Your task to perform on an android device: check android version Image 0: 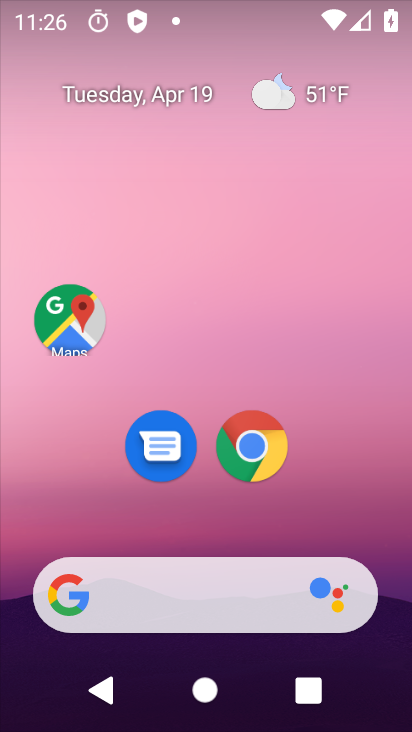
Step 0: drag from (360, 249) to (355, 179)
Your task to perform on an android device: check android version Image 1: 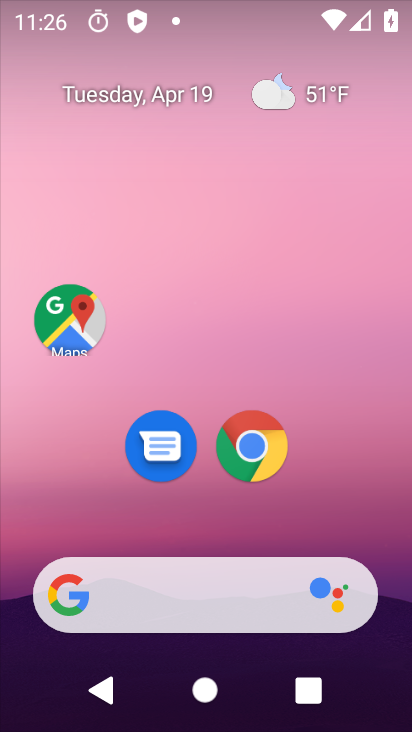
Step 1: drag from (333, 194) to (323, 94)
Your task to perform on an android device: check android version Image 2: 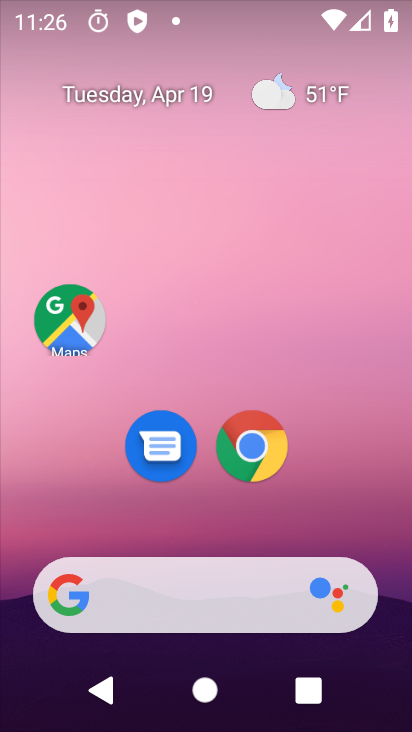
Step 2: click (364, 39)
Your task to perform on an android device: check android version Image 3: 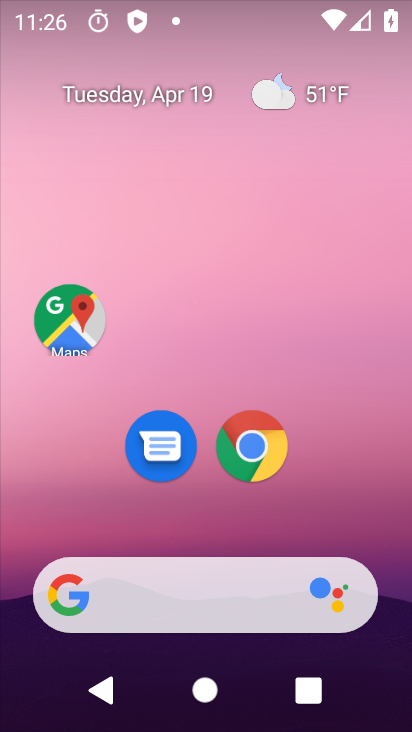
Step 3: drag from (388, 557) to (352, 76)
Your task to perform on an android device: check android version Image 4: 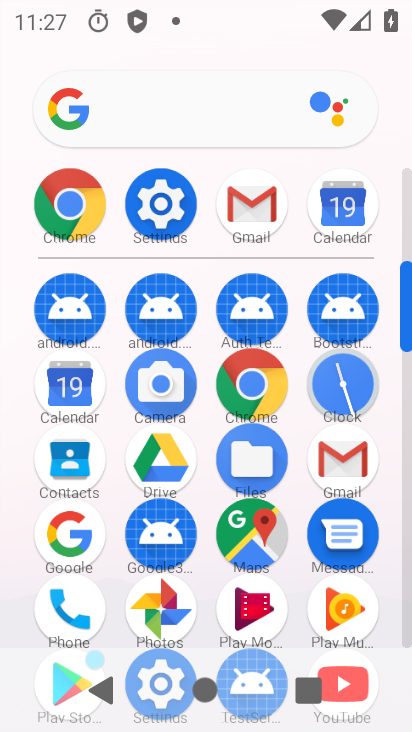
Step 4: click (168, 208)
Your task to perform on an android device: check android version Image 5: 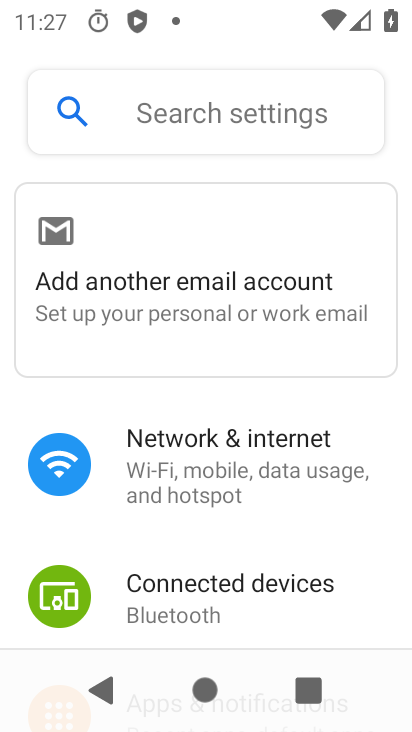
Step 5: drag from (355, 602) to (354, 254)
Your task to perform on an android device: check android version Image 6: 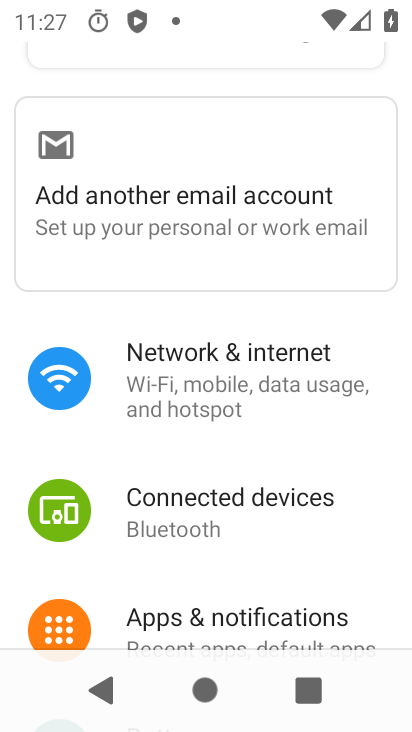
Step 6: drag from (360, 625) to (361, 184)
Your task to perform on an android device: check android version Image 7: 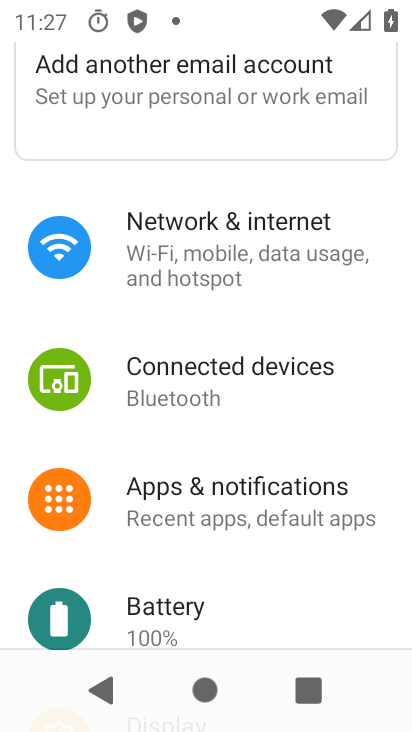
Step 7: drag from (363, 604) to (366, 225)
Your task to perform on an android device: check android version Image 8: 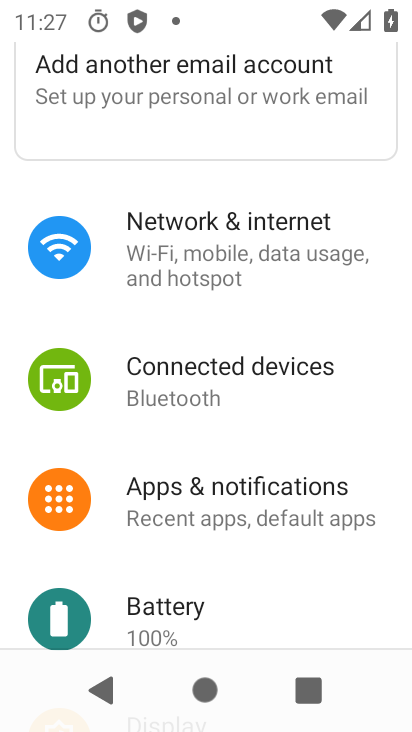
Step 8: drag from (359, 615) to (351, 131)
Your task to perform on an android device: check android version Image 9: 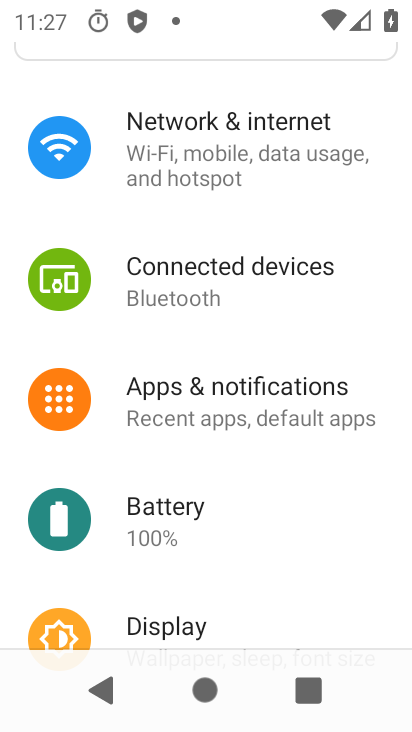
Step 9: drag from (342, 625) to (340, 191)
Your task to perform on an android device: check android version Image 10: 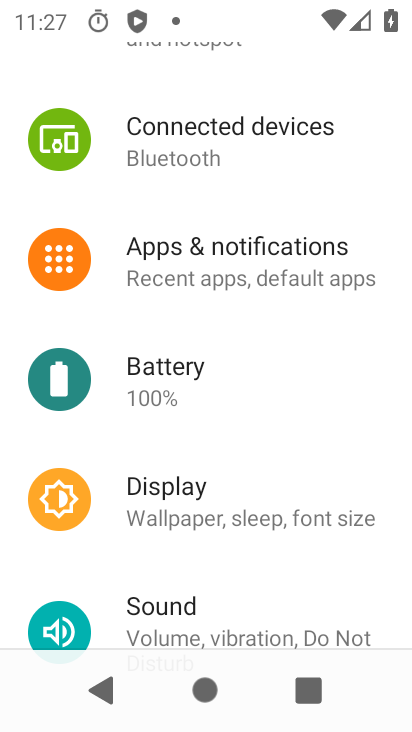
Step 10: drag from (373, 597) to (392, 213)
Your task to perform on an android device: check android version Image 11: 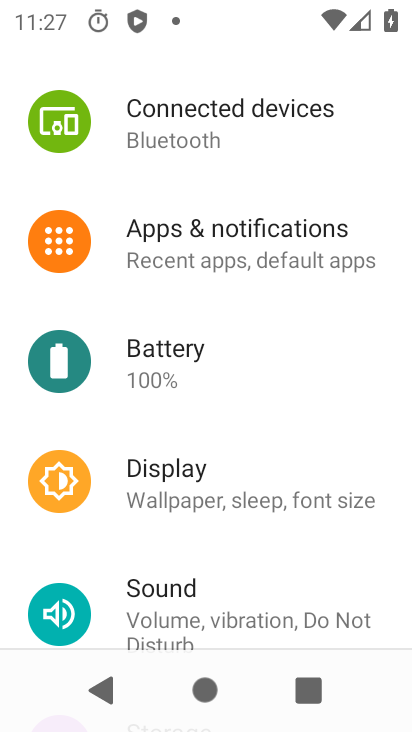
Step 11: drag from (398, 316) to (401, 121)
Your task to perform on an android device: check android version Image 12: 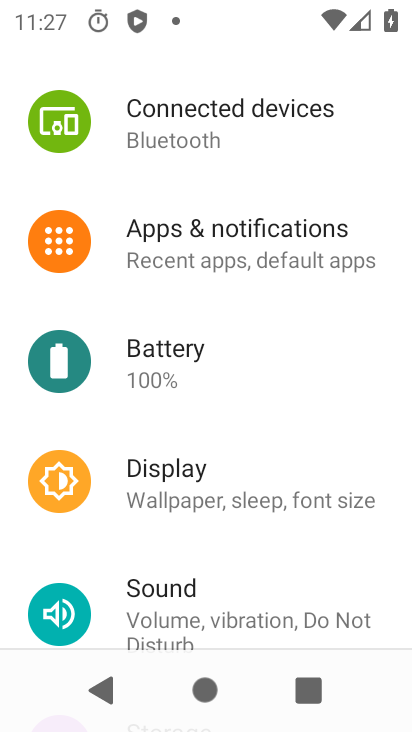
Step 12: click (391, 619)
Your task to perform on an android device: check android version Image 13: 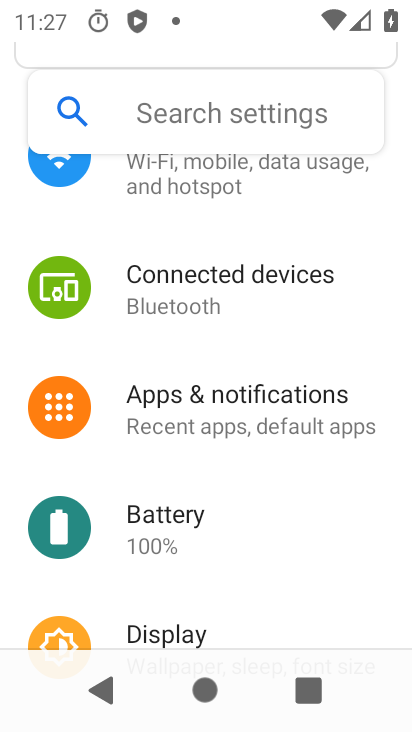
Step 13: drag from (382, 545) to (373, 132)
Your task to perform on an android device: check android version Image 14: 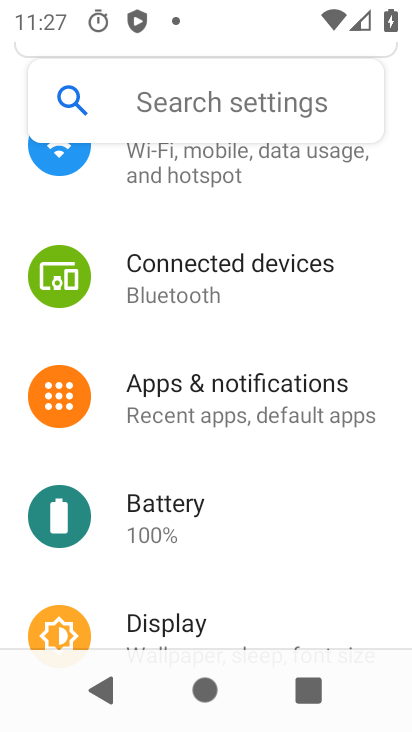
Step 14: drag from (386, 507) to (410, 246)
Your task to perform on an android device: check android version Image 15: 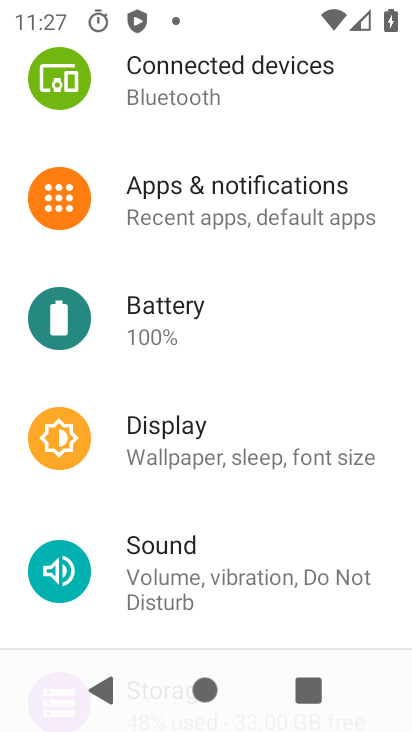
Step 15: click (399, 121)
Your task to perform on an android device: check android version Image 16: 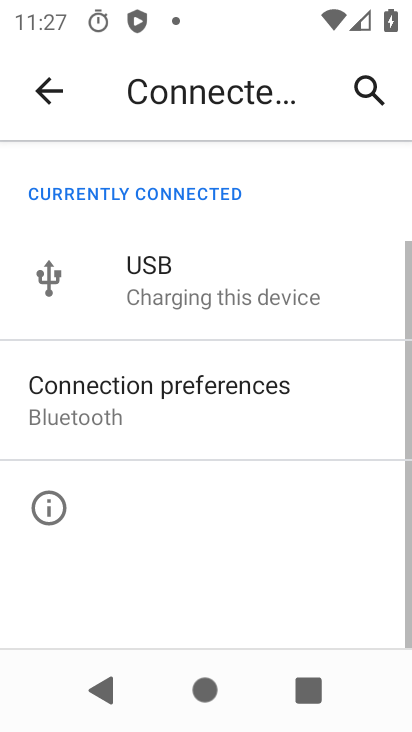
Step 16: drag from (388, 630) to (390, 357)
Your task to perform on an android device: check android version Image 17: 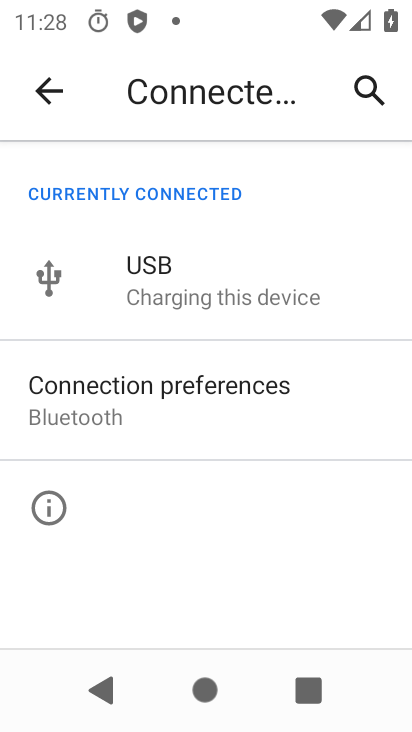
Step 17: click (47, 95)
Your task to perform on an android device: check android version Image 18: 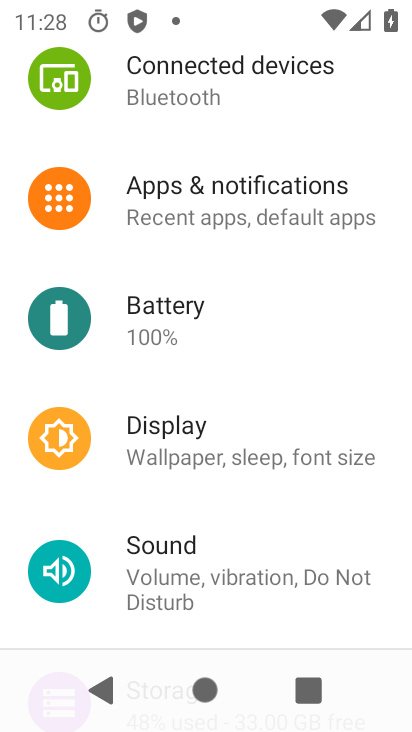
Step 18: drag from (309, 587) to (301, 244)
Your task to perform on an android device: check android version Image 19: 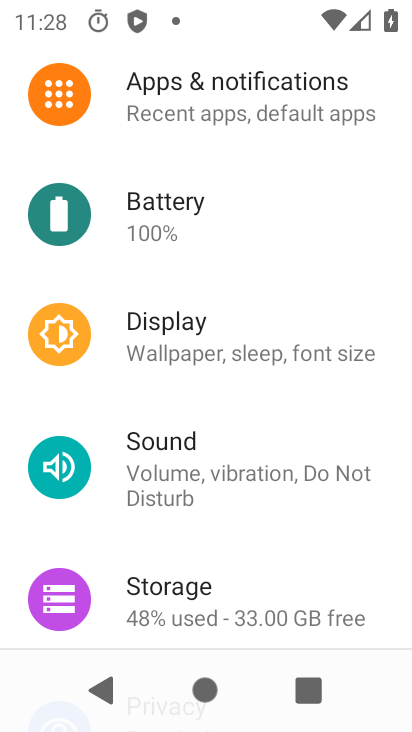
Step 19: drag from (277, 422) to (282, 170)
Your task to perform on an android device: check android version Image 20: 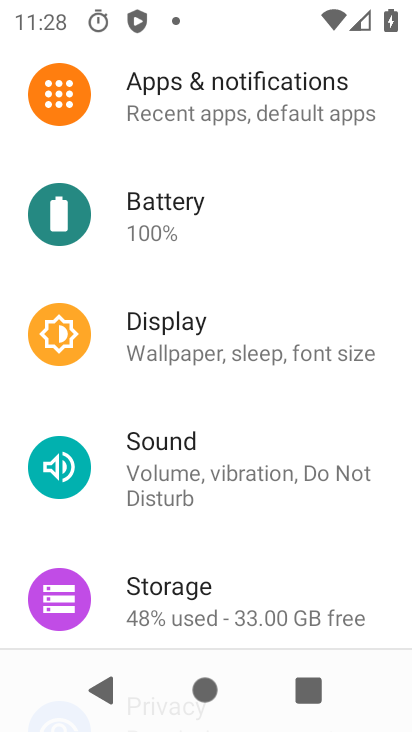
Step 20: drag from (381, 582) to (352, 159)
Your task to perform on an android device: check android version Image 21: 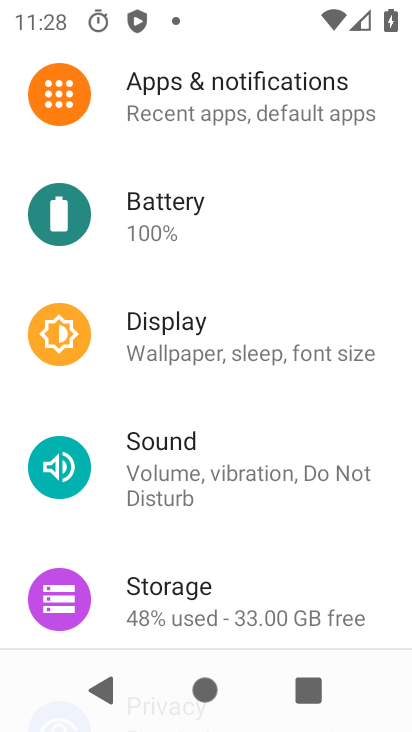
Step 21: drag from (384, 581) to (361, 213)
Your task to perform on an android device: check android version Image 22: 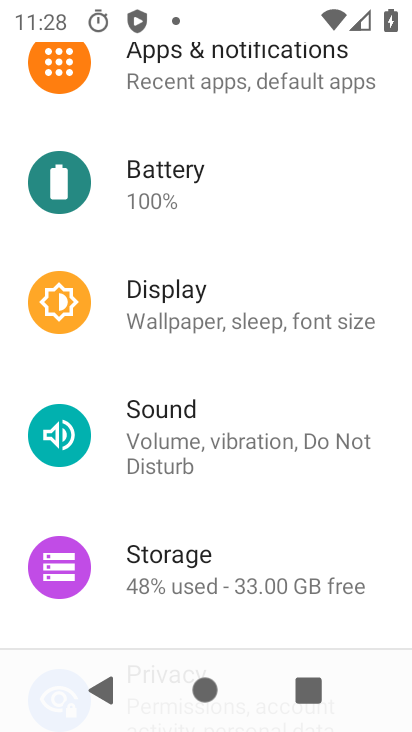
Step 22: drag from (374, 595) to (353, 160)
Your task to perform on an android device: check android version Image 23: 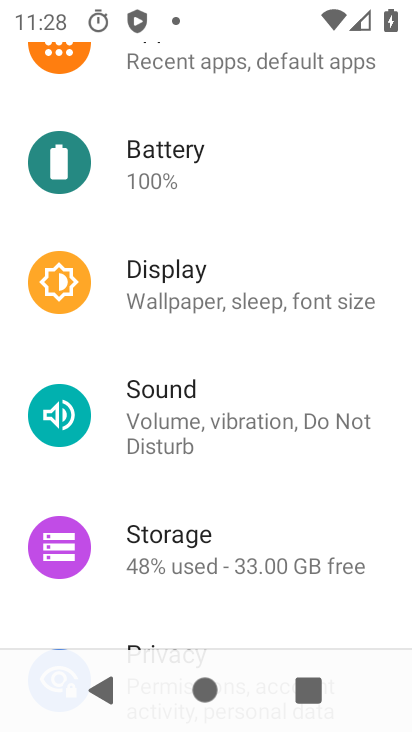
Step 23: drag from (366, 579) to (358, 184)
Your task to perform on an android device: check android version Image 24: 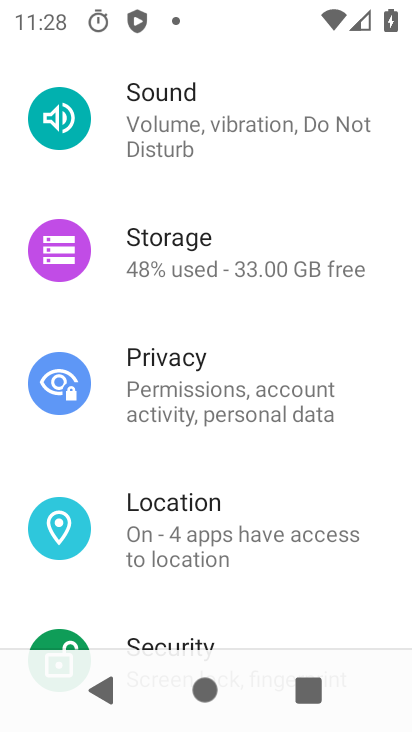
Step 24: drag from (371, 628) to (343, 122)
Your task to perform on an android device: check android version Image 25: 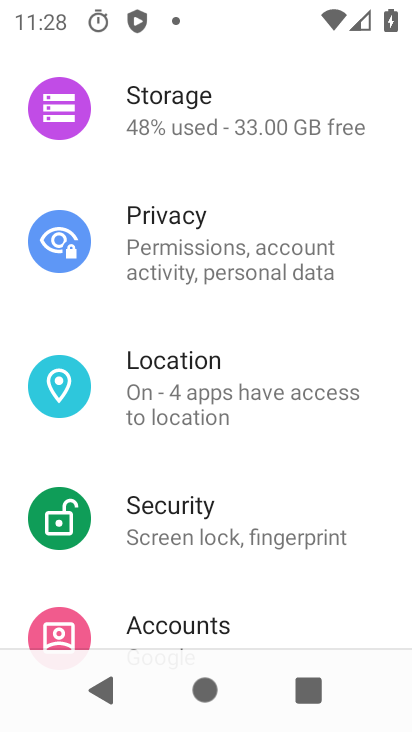
Step 25: drag from (331, 603) to (342, 137)
Your task to perform on an android device: check android version Image 26: 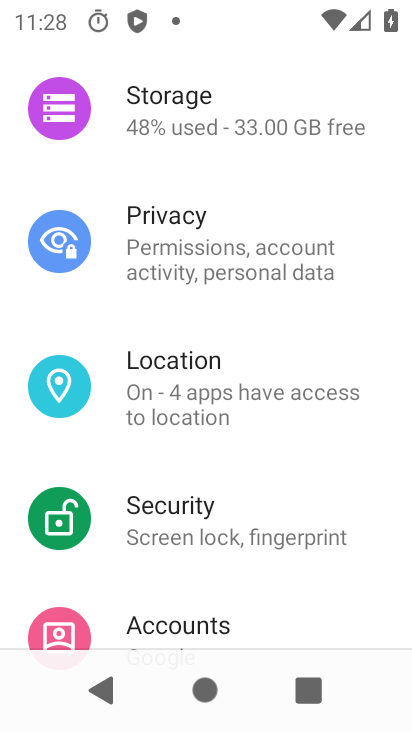
Step 26: drag from (378, 609) to (409, 133)
Your task to perform on an android device: check android version Image 27: 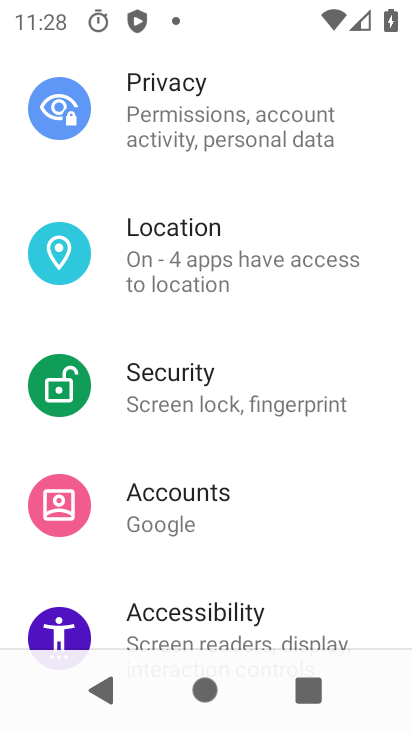
Step 27: drag from (382, 570) to (371, 0)
Your task to perform on an android device: check android version Image 28: 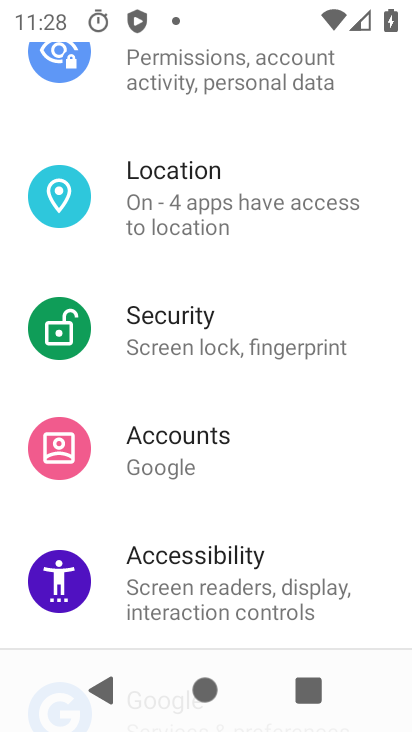
Step 28: drag from (383, 543) to (400, 178)
Your task to perform on an android device: check android version Image 29: 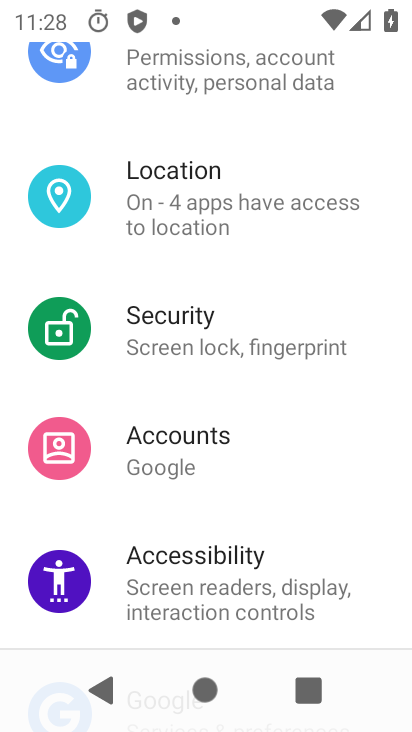
Step 29: click (372, 203)
Your task to perform on an android device: check android version Image 30: 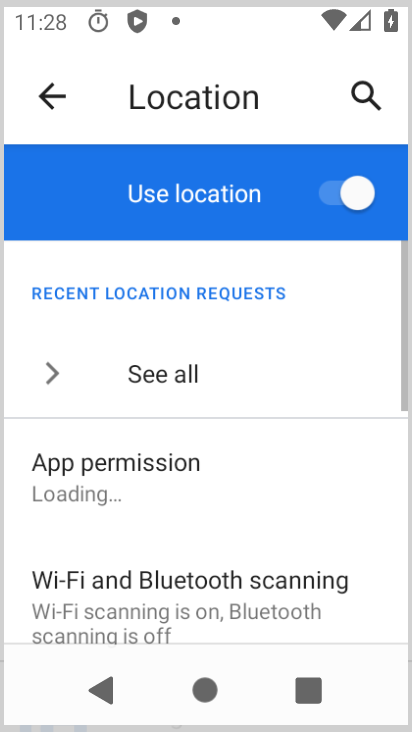
Step 30: drag from (401, 408) to (407, 166)
Your task to perform on an android device: check android version Image 31: 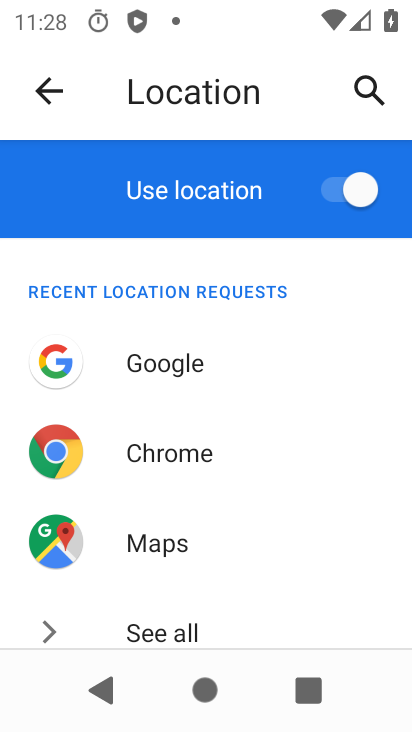
Step 31: click (40, 85)
Your task to perform on an android device: check android version Image 32: 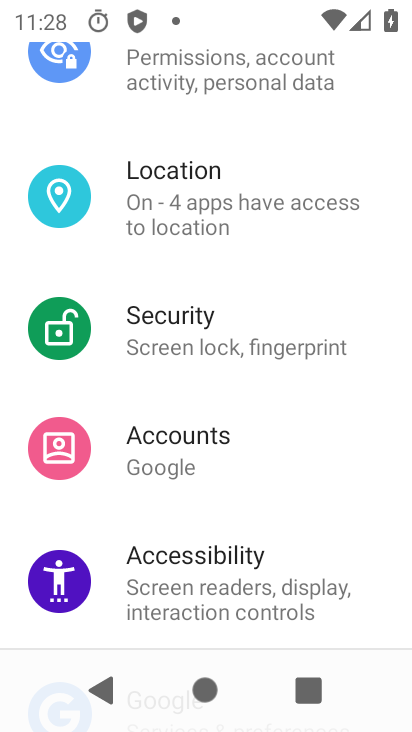
Step 32: drag from (359, 569) to (367, 263)
Your task to perform on an android device: check android version Image 33: 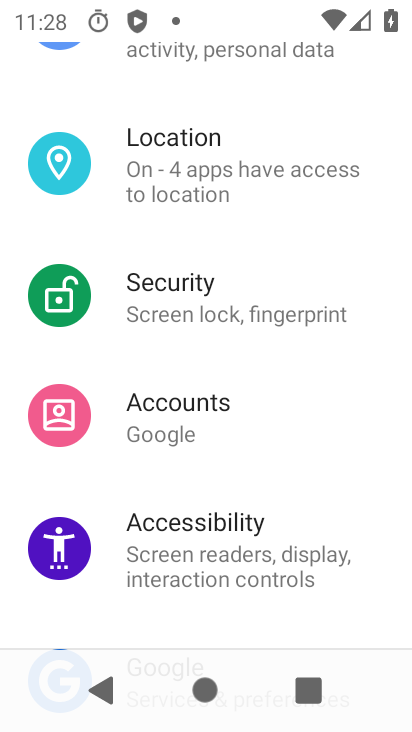
Step 33: drag from (377, 467) to (381, 226)
Your task to perform on an android device: check android version Image 34: 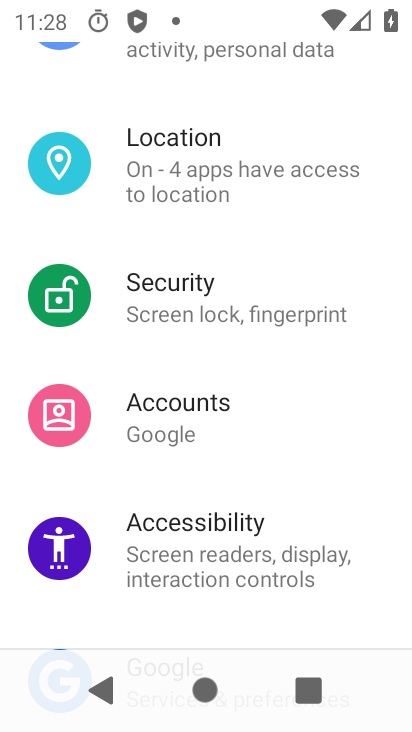
Step 34: drag from (375, 347) to (378, 232)
Your task to perform on an android device: check android version Image 35: 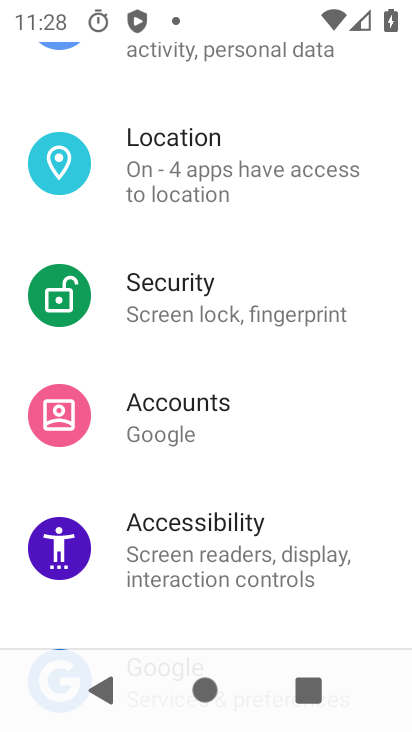
Step 35: drag from (374, 556) to (364, 226)
Your task to perform on an android device: check android version Image 36: 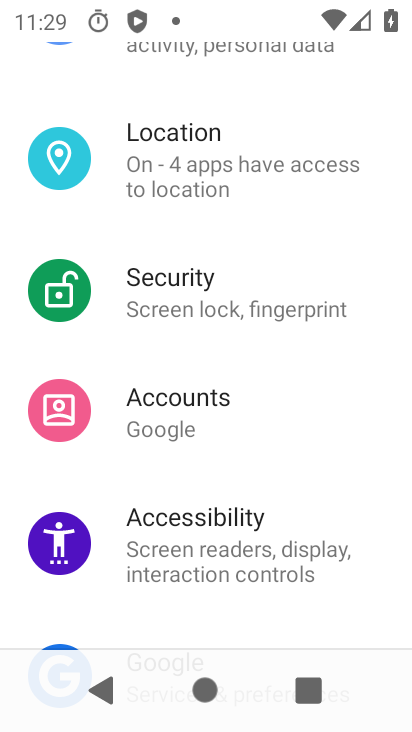
Step 36: click (392, 173)
Your task to perform on an android device: check android version Image 37: 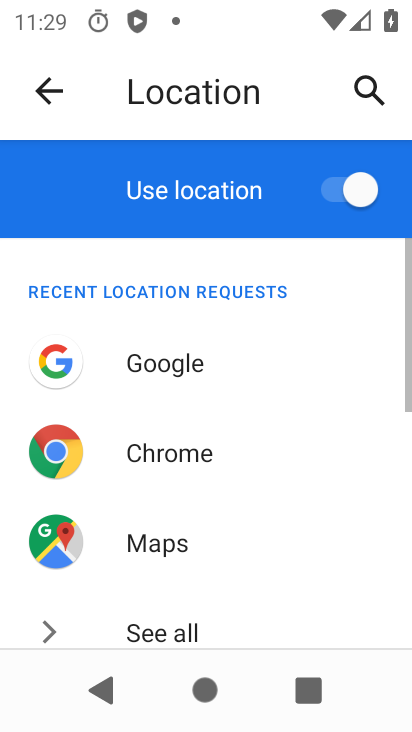
Step 37: drag from (378, 484) to (373, 361)
Your task to perform on an android device: check android version Image 38: 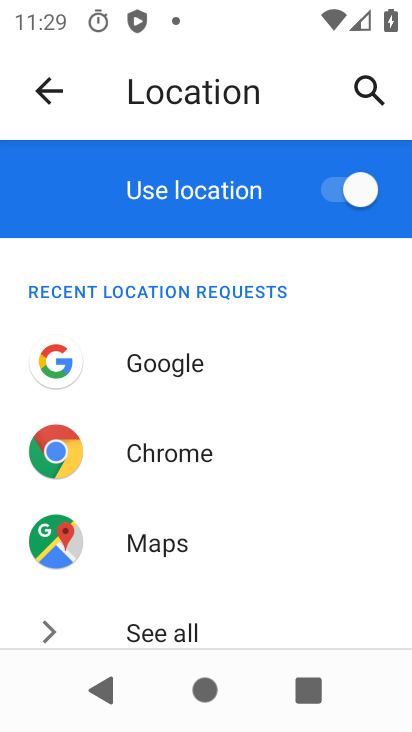
Step 38: click (24, 90)
Your task to perform on an android device: check android version Image 39: 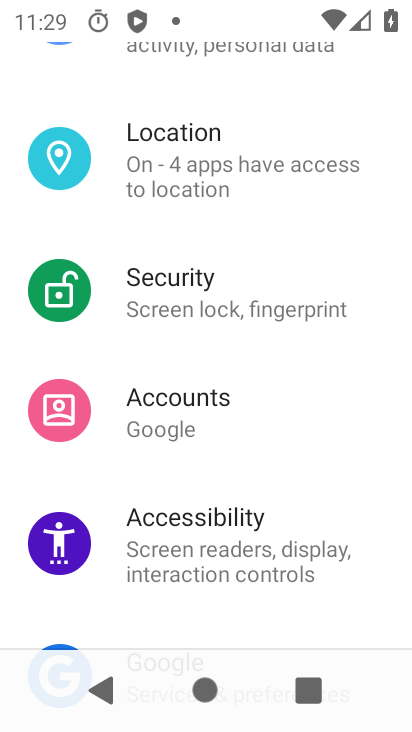
Step 39: drag from (377, 607) to (390, 194)
Your task to perform on an android device: check android version Image 40: 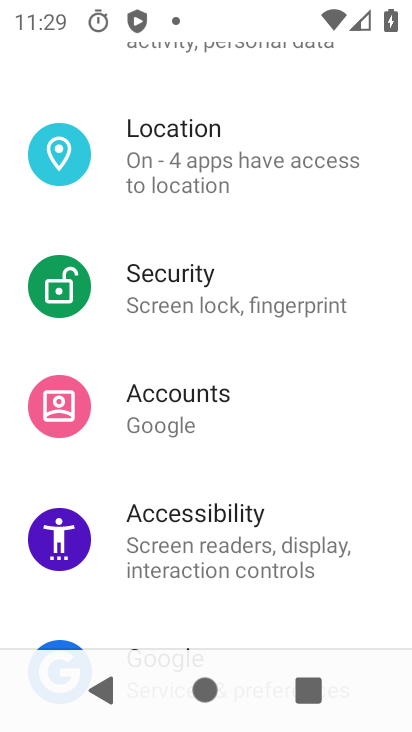
Step 40: drag from (377, 595) to (366, 192)
Your task to perform on an android device: check android version Image 41: 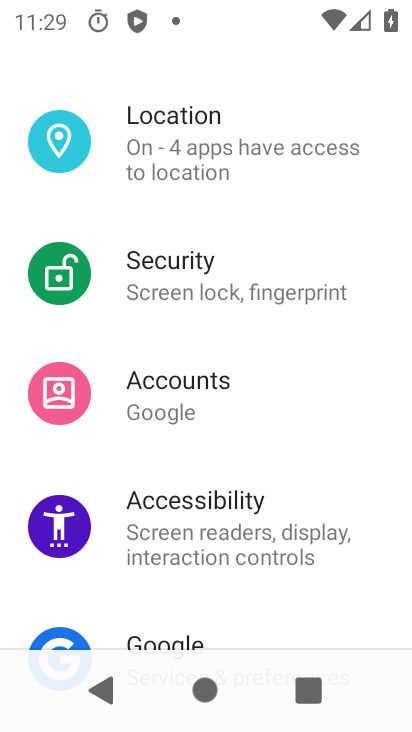
Step 41: drag from (377, 604) to (360, 312)
Your task to perform on an android device: check android version Image 42: 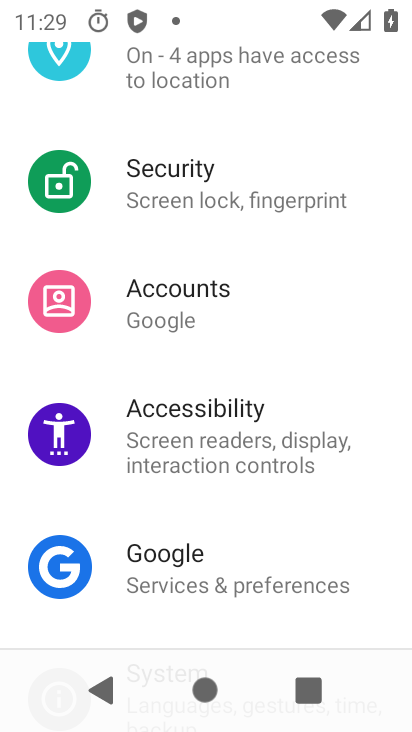
Step 42: drag from (377, 624) to (362, 213)
Your task to perform on an android device: check android version Image 43: 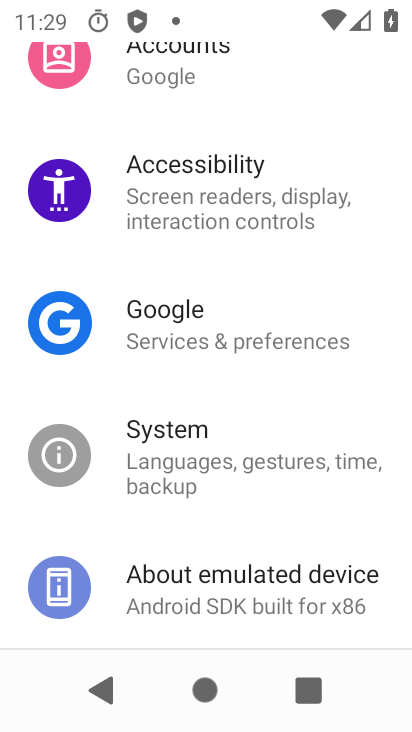
Step 43: click (248, 582)
Your task to perform on an android device: check android version Image 44: 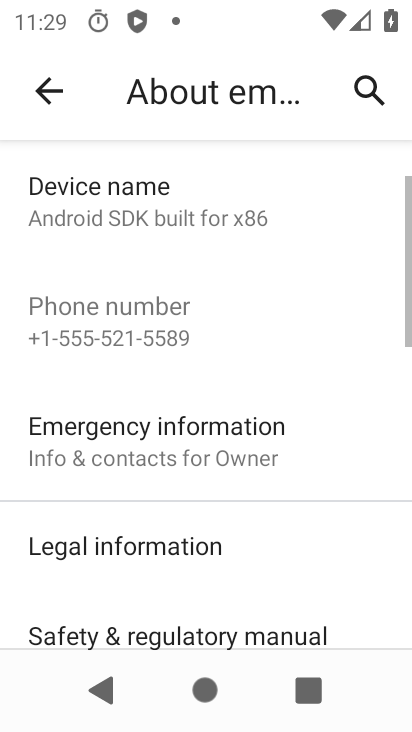
Step 44: drag from (354, 608) to (314, 236)
Your task to perform on an android device: check android version Image 45: 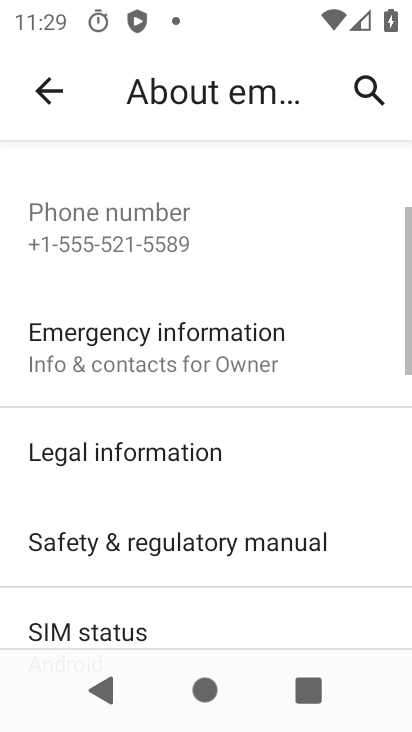
Step 45: click (314, 210)
Your task to perform on an android device: check android version Image 46: 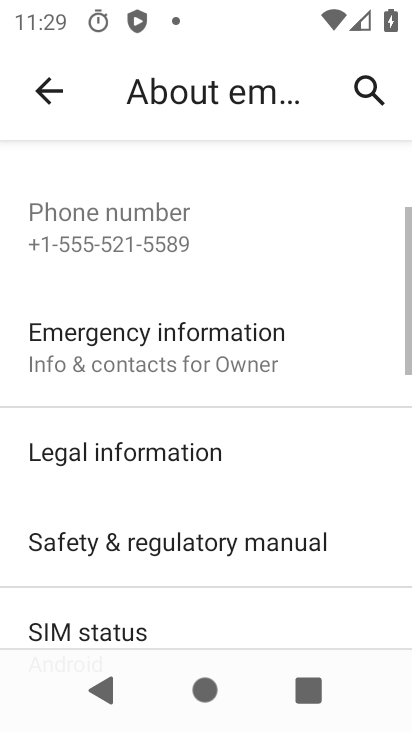
Step 46: click (355, 264)
Your task to perform on an android device: check android version Image 47: 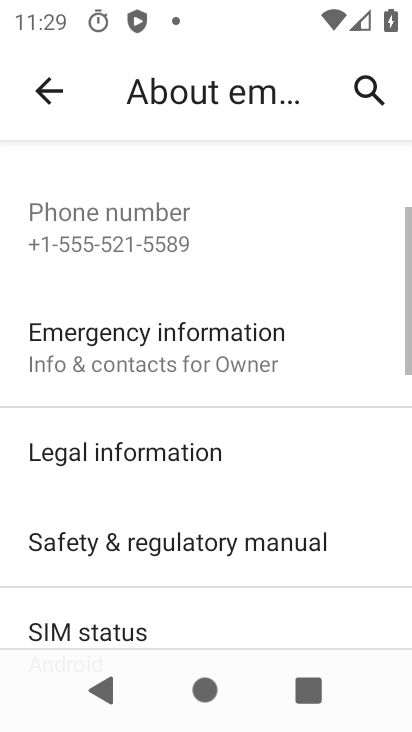
Step 47: click (357, 155)
Your task to perform on an android device: check android version Image 48: 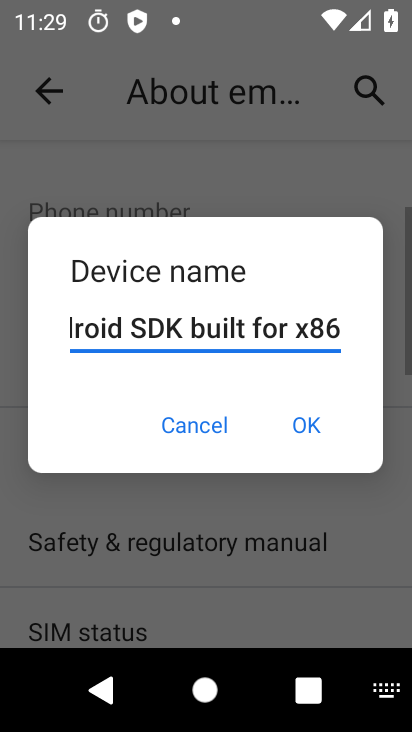
Step 48: drag from (408, 328) to (393, 147)
Your task to perform on an android device: check android version Image 49: 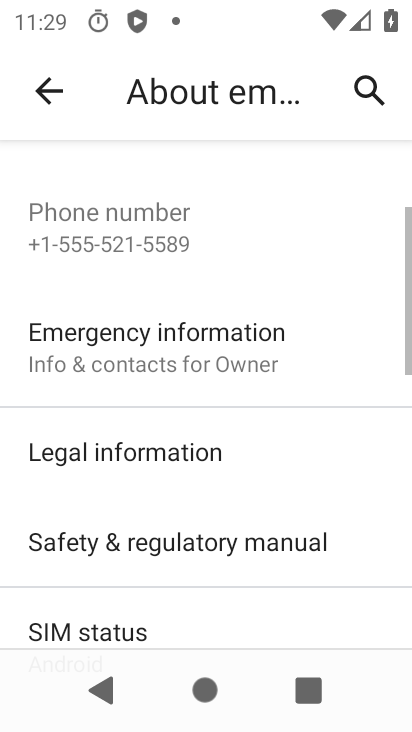
Step 49: drag from (407, 319) to (396, 142)
Your task to perform on an android device: check android version Image 50: 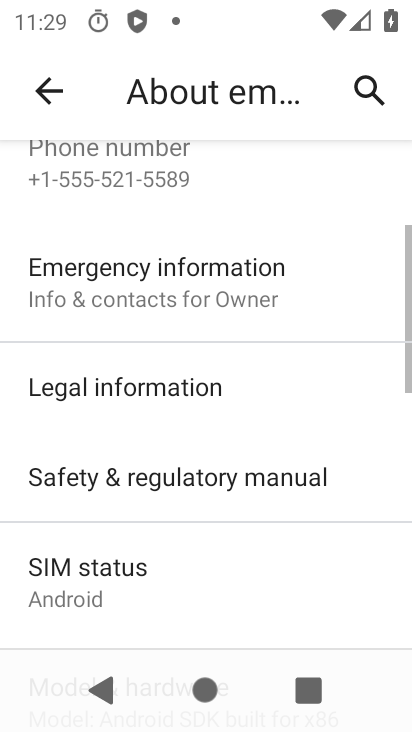
Step 50: drag from (407, 333) to (402, 176)
Your task to perform on an android device: check android version Image 51: 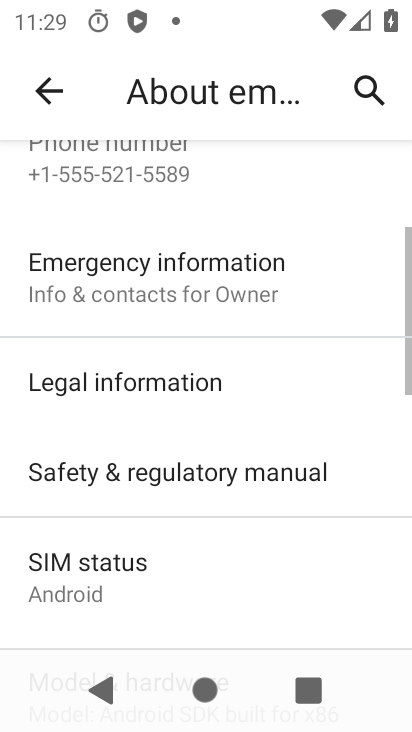
Step 51: drag from (404, 368) to (400, 229)
Your task to perform on an android device: check android version Image 52: 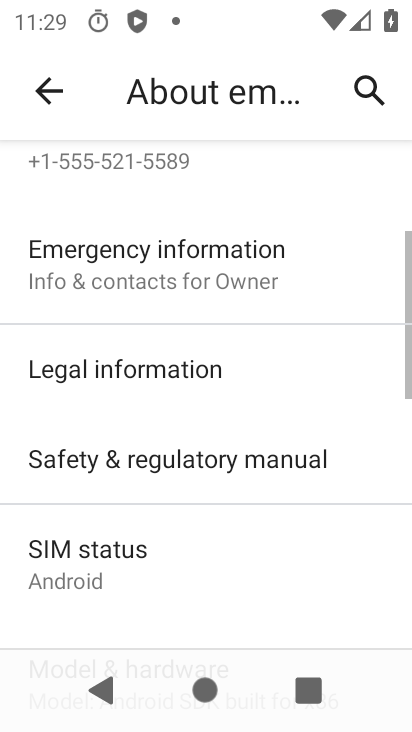
Step 52: drag from (403, 361) to (394, 116)
Your task to perform on an android device: check android version Image 53: 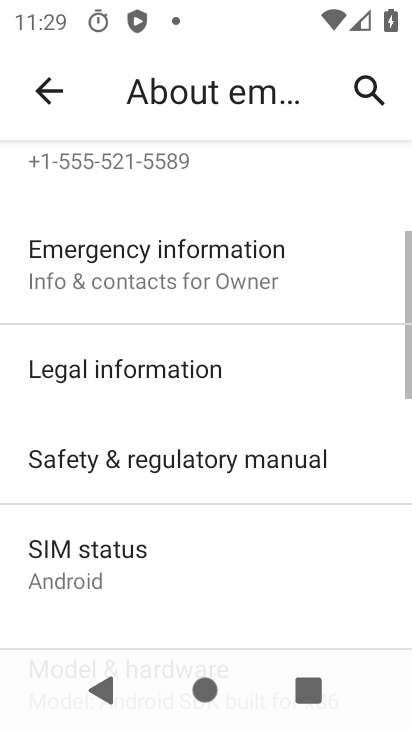
Step 53: drag from (372, 562) to (363, 192)
Your task to perform on an android device: check android version Image 54: 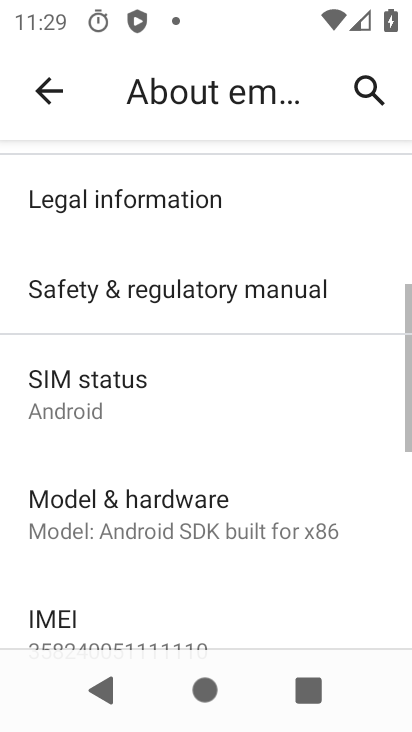
Step 54: drag from (351, 422) to (339, 202)
Your task to perform on an android device: check android version Image 55: 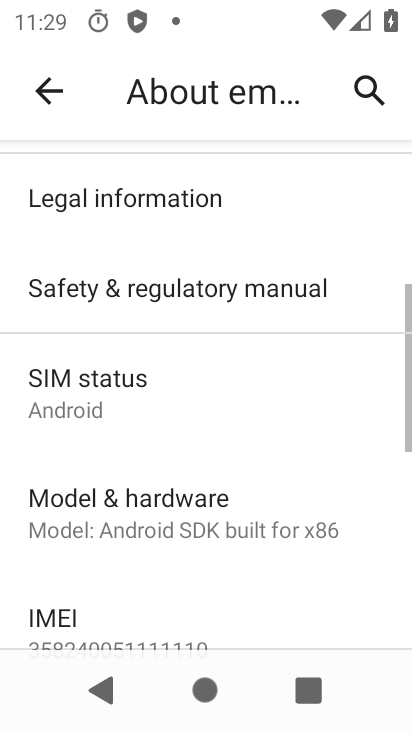
Step 55: drag from (337, 581) to (346, 182)
Your task to perform on an android device: check android version Image 56: 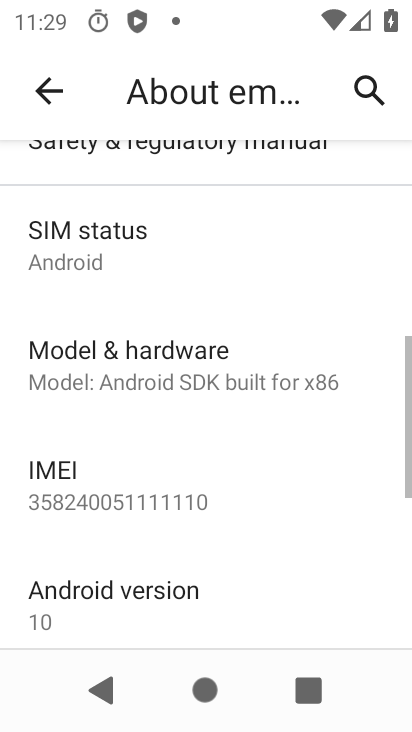
Step 56: click (109, 592)
Your task to perform on an android device: check android version Image 57: 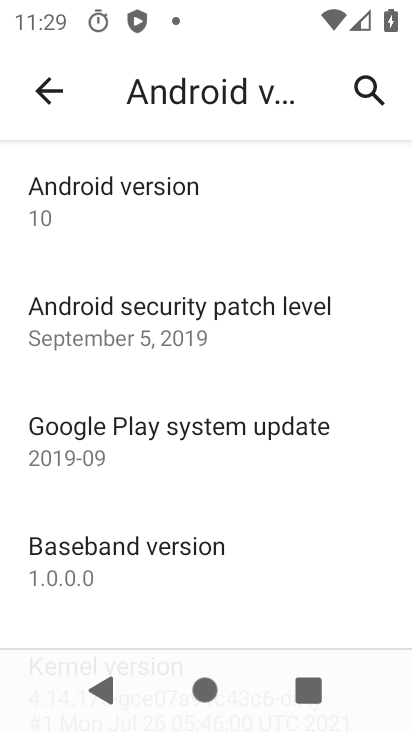
Step 57: click (91, 191)
Your task to perform on an android device: check android version Image 58: 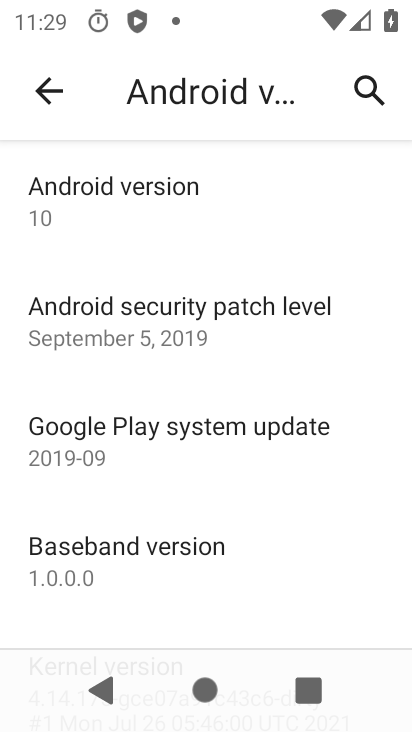
Step 58: task complete